Your task to perform on an android device: toggle javascript in the chrome app Image 0: 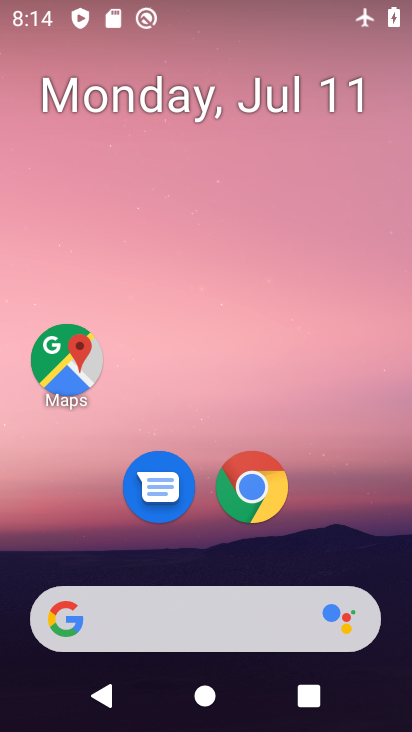
Step 0: click (258, 488)
Your task to perform on an android device: toggle javascript in the chrome app Image 1: 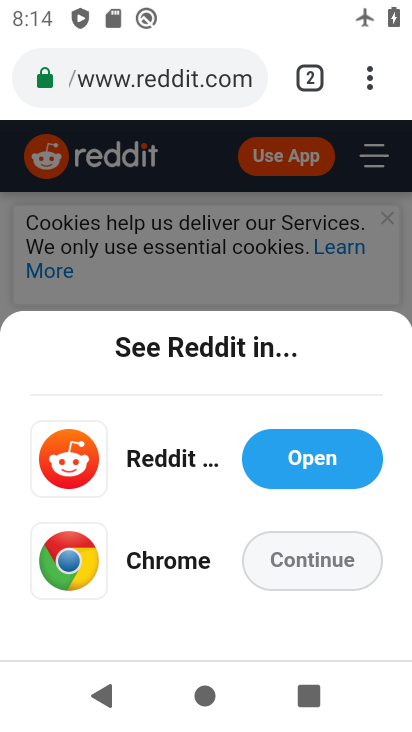
Step 1: drag from (372, 73) to (108, 552)
Your task to perform on an android device: toggle javascript in the chrome app Image 2: 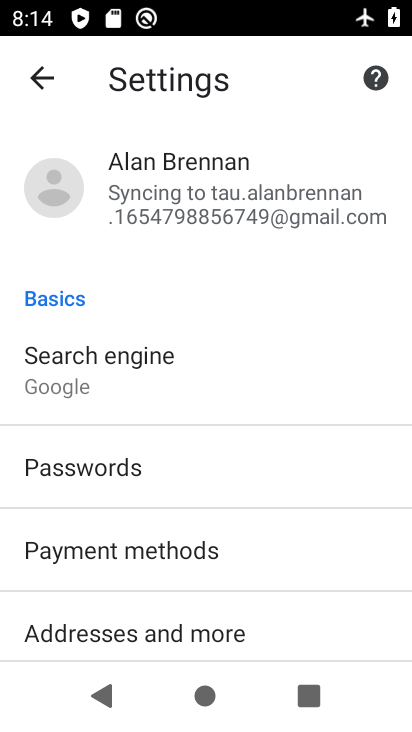
Step 2: drag from (97, 578) to (210, 119)
Your task to perform on an android device: toggle javascript in the chrome app Image 3: 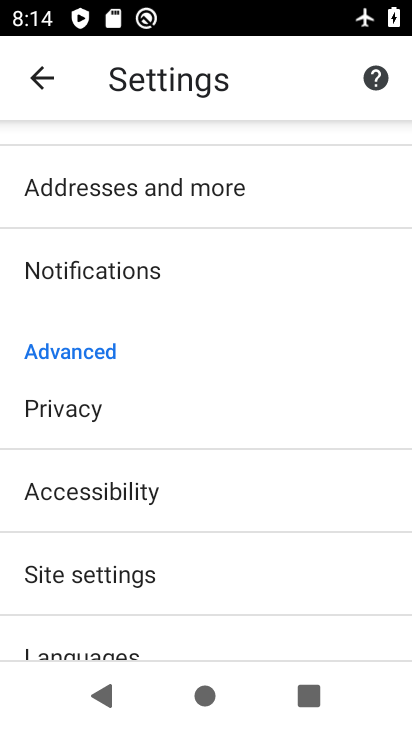
Step 3: click (91, 575)
Your task to perform on an android device: toggle javascript in the chrome app Image 4: 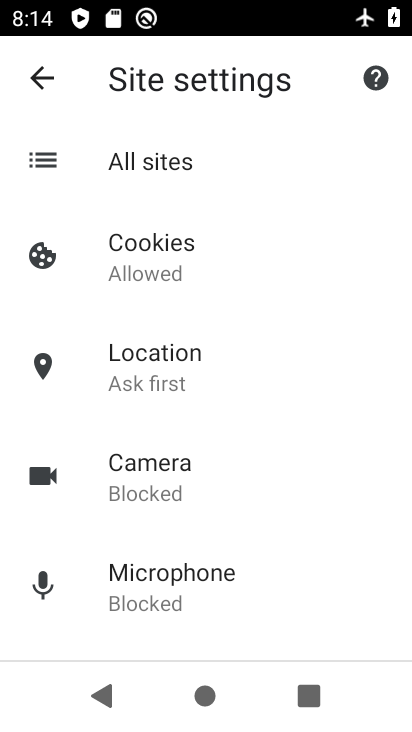
Step 4: drag from (170, 593) to (229, 264)
Your task to perform on an android device: toggle javascript in the chrome app Image 5: 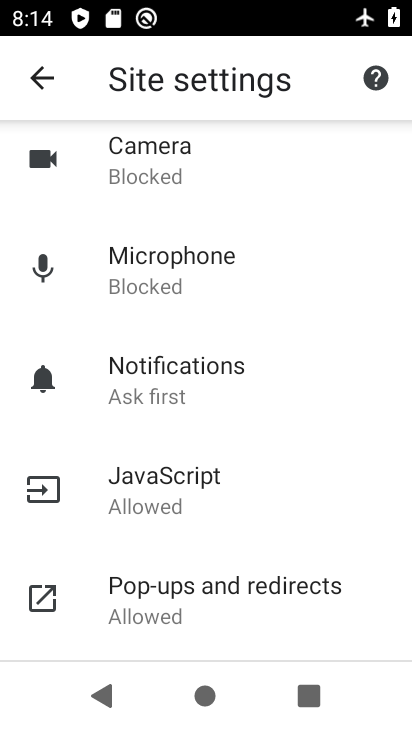
Step 5: click (180, 487)
Your task to perform on an android device: toggle javascript in the chrome app Image 6: 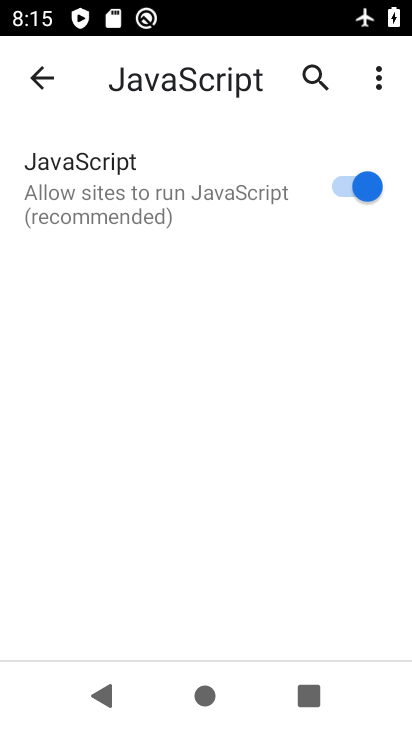
Step 6: click (362, 195)
Your task to perform on an android device: toggle javascript in the chrome app Image 7: 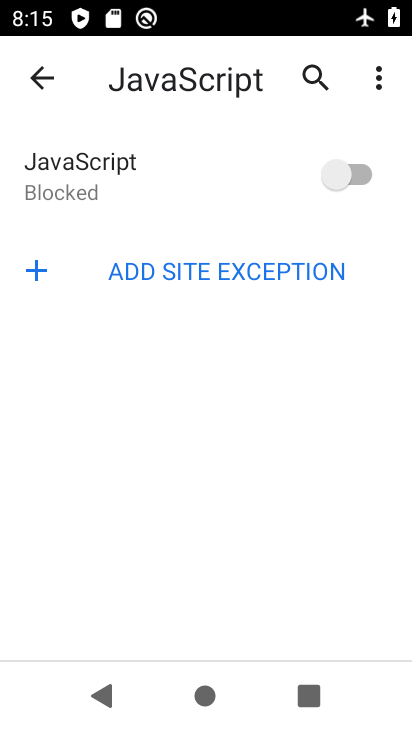
Step 7: task complete